Your task to perform on an android device: turn on sleep mode Image 0: 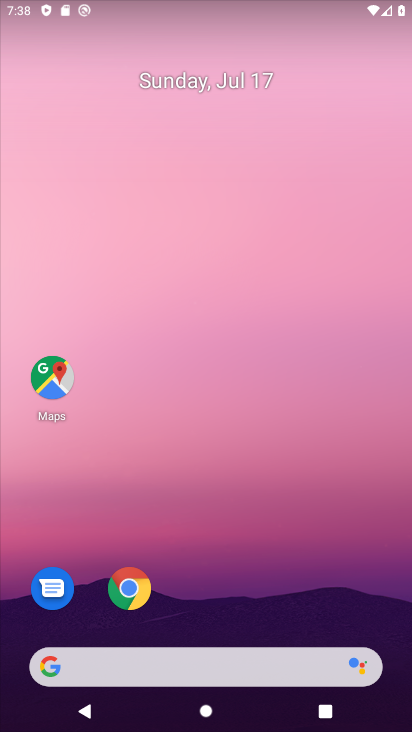
Step 0: drag from (322, 574) to (310, 150)
Your task to perform on an android device: turn on sleep mode Image 1: 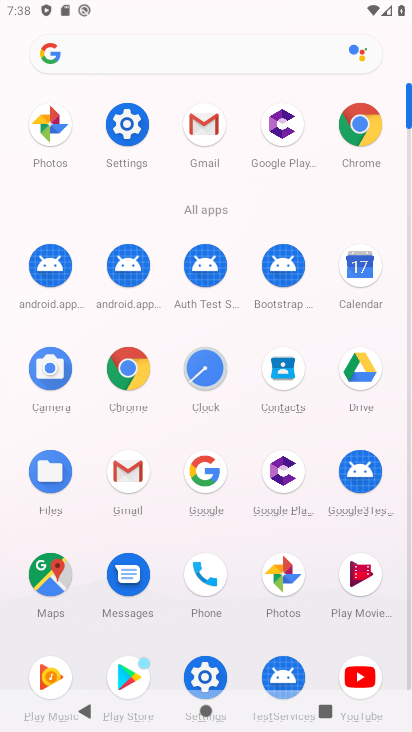
Step 1: click (131, 165)
Your task to perform on an android device: turn on sleep mode Image 2: 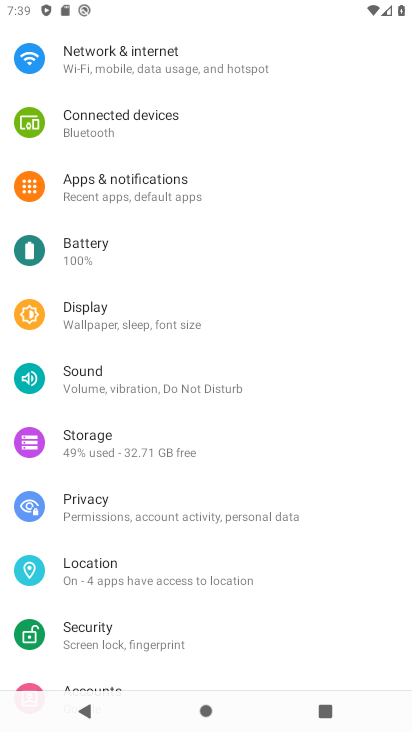
Step 2: click (108, 312)
Your task to perform on an android device: turn on sleep mode Image 3: 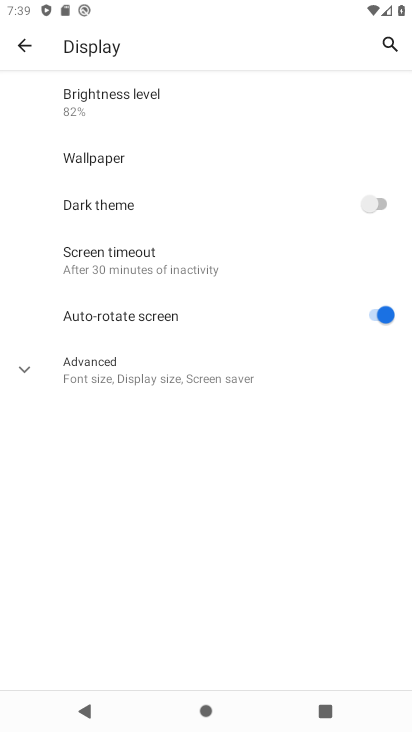
Step 3: click (179, 372)
Your task to perform on an android device: turn on sleep mode Image 4: 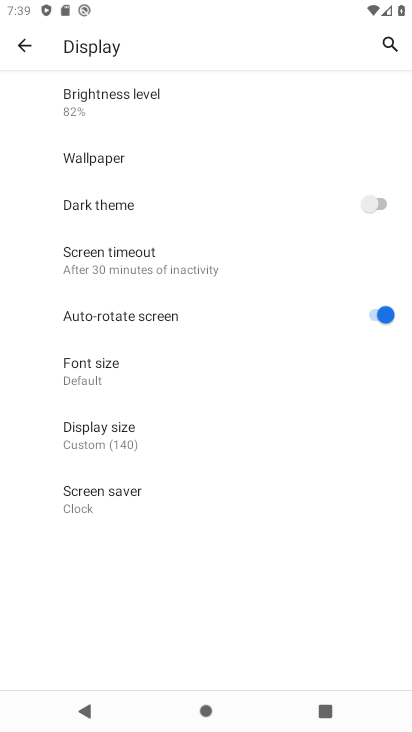
Step 4: click (224, 260)
Your task to perform on an android device: turn on sleep mode Image 5: 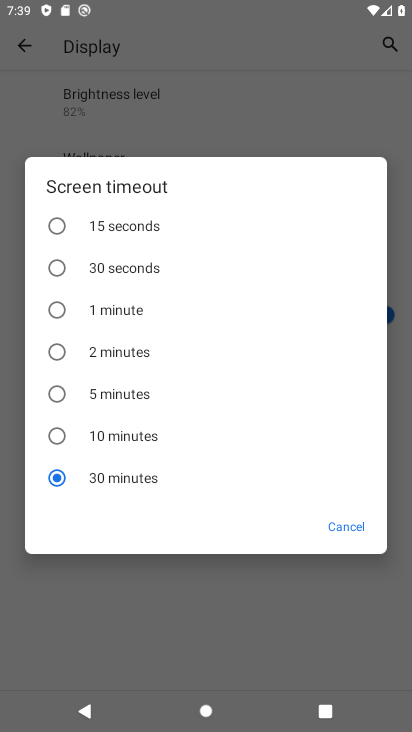
Step 5: click (189, 217)
Your task to perform on an android device: turn on sleep mode Image 6: 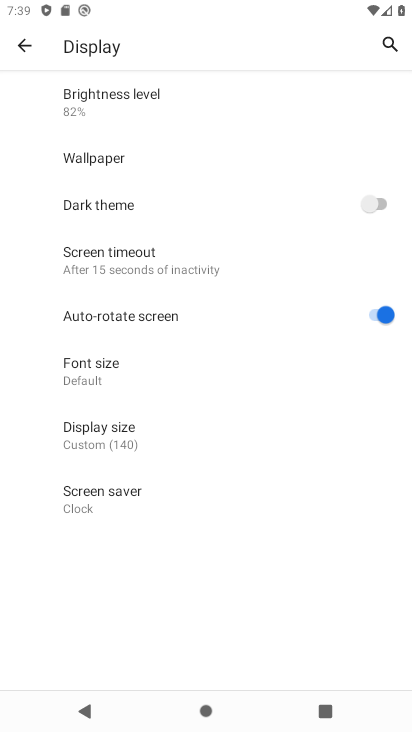
Step 6: task complete